Your task to perform on an android device: Open Google Chrome and open the bookmarks view Image 0: 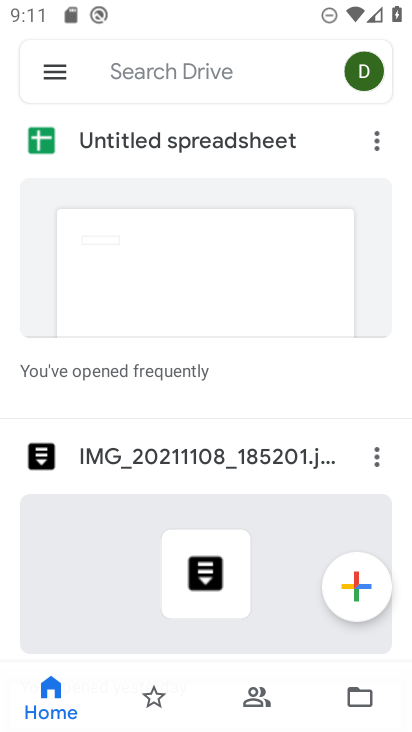
Step 0: press home button
Your task to perform on an android device: Open Google Chrome and open the bookmarks view Image 1: 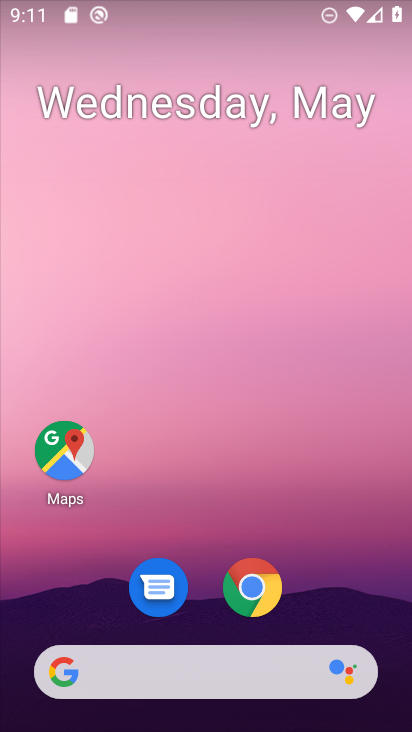
Step 1: click (247, 588)
Your task to perform on an android device: Open Google Chrome and open the bookmarks view Image 2: 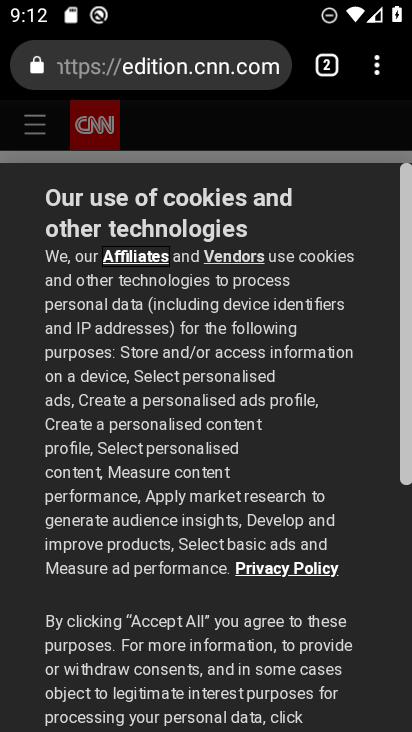
Step 2: click (378, 73)
Your task to perform on an android device: Open Google Chrome and open the bookmarks view Image 3: 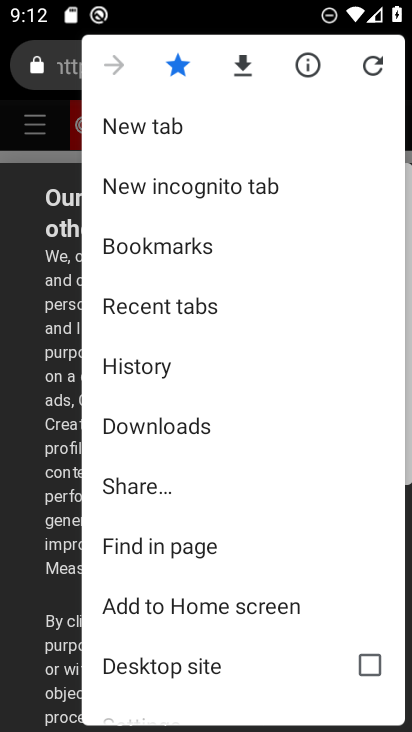
Step 3: click (142, 245)
Your task to perform on an android device: Open Google Chrome and open the bookmarks view Image 4: 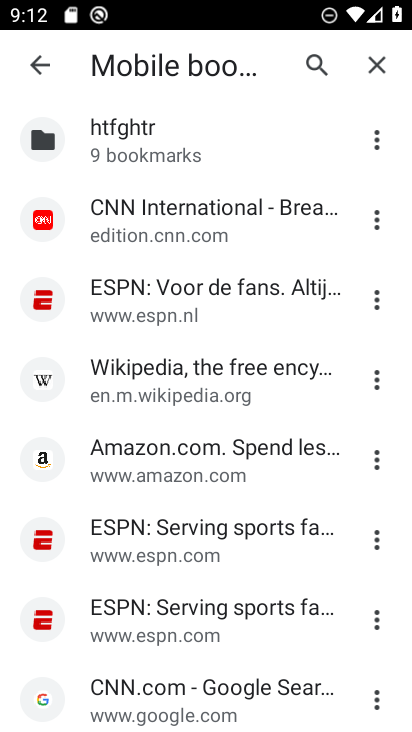
Step 4: task complete